Your task to perform on an android device: Go to Maps Image 0: 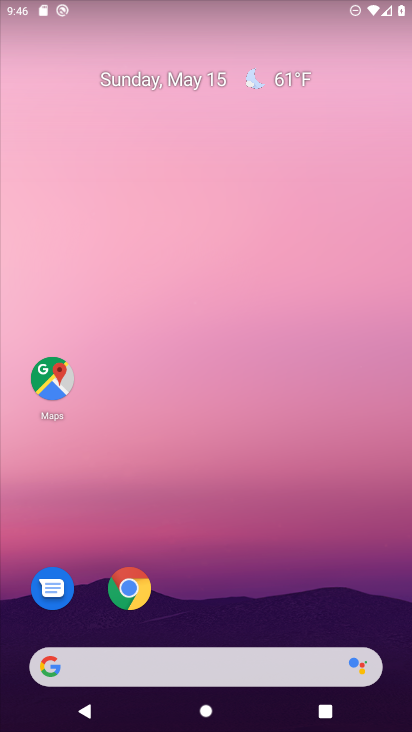
Step 0: click (58, 379)
Your task to perform on an android device: Go to Maps Image 1: 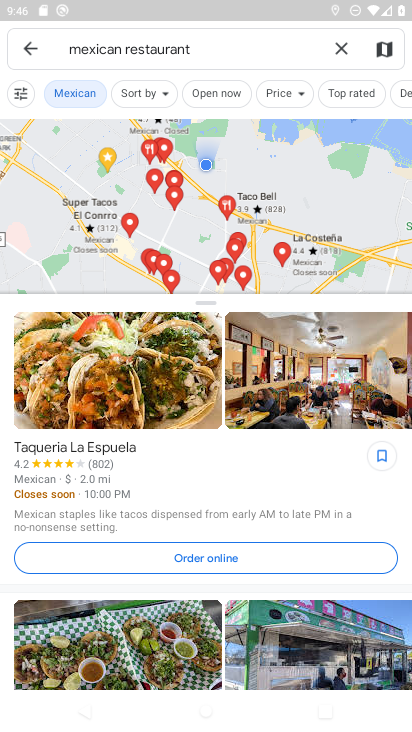
Step 1: click (17, 42)
Your task to perform on an android device: Go to Maps Image 2: 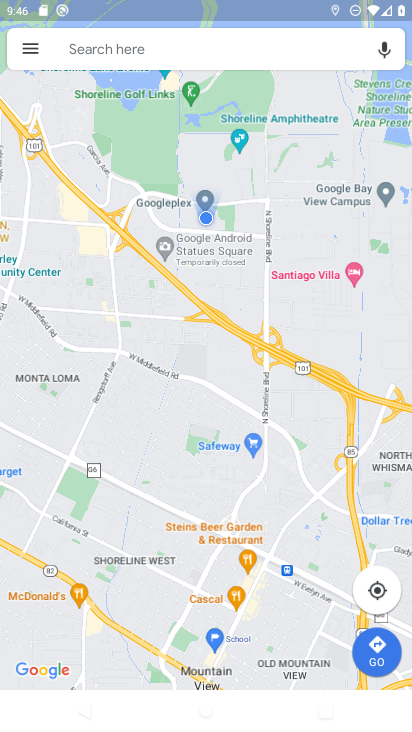
Step 2: task complete